Your task to perform on an android device: What is the news today? Image 0: 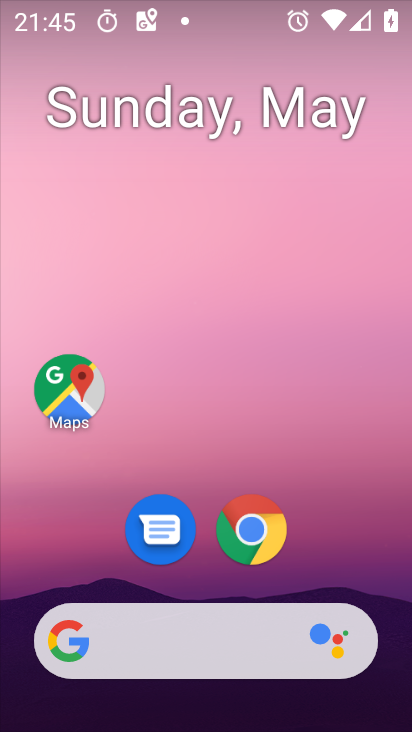
Step 0: click (135, 650)
Your task to perform on an android device: What is the news today? Image 1: 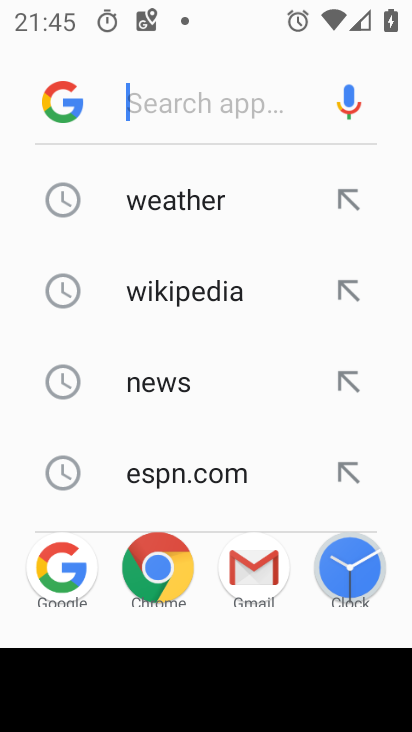
Step 1: click (156, 99)
Your task to perform on an android device: What is the news today? Image 2: 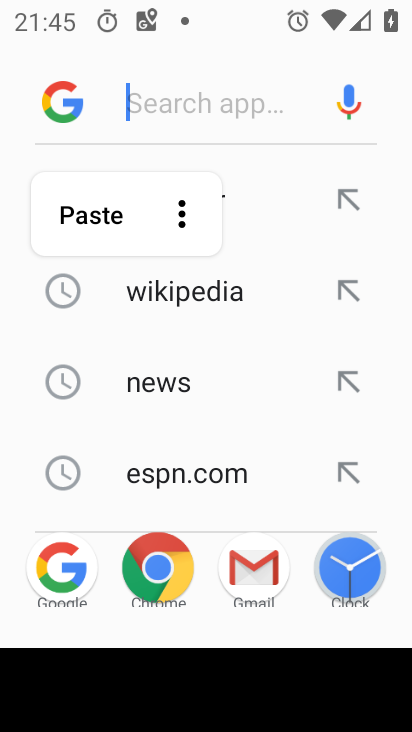
Step 2: type "today's news"
Your task to perform on an android device: What is the news today? Image 3: 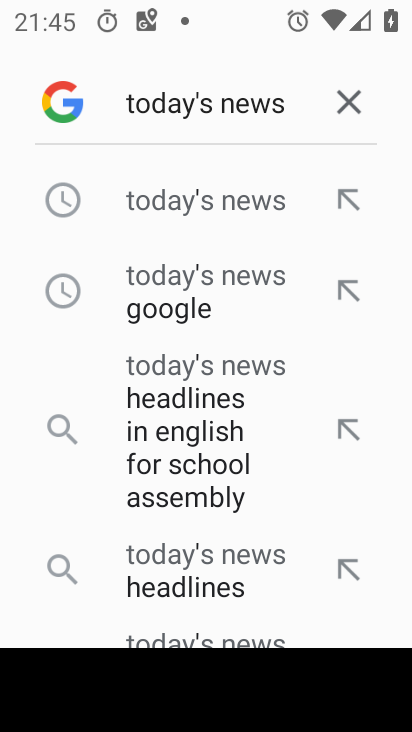
Step 3: click (192, 200)
Your task to perform on an android device: What is the news today? Image 4: 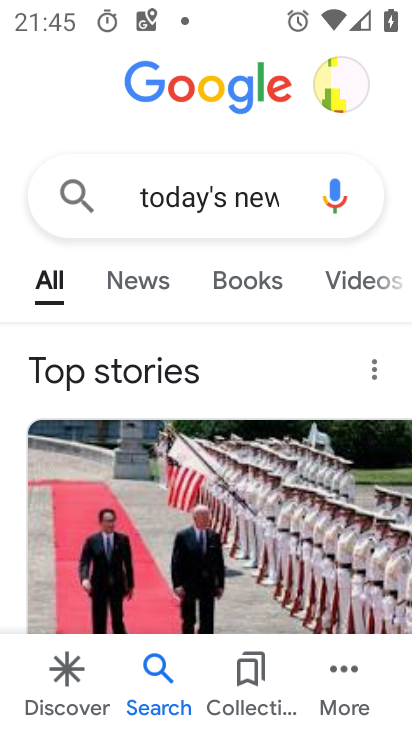
Step 4: drag from (205, 459) to (239, 176)
Your task to perform on an android device: What is the news today? Image 5: 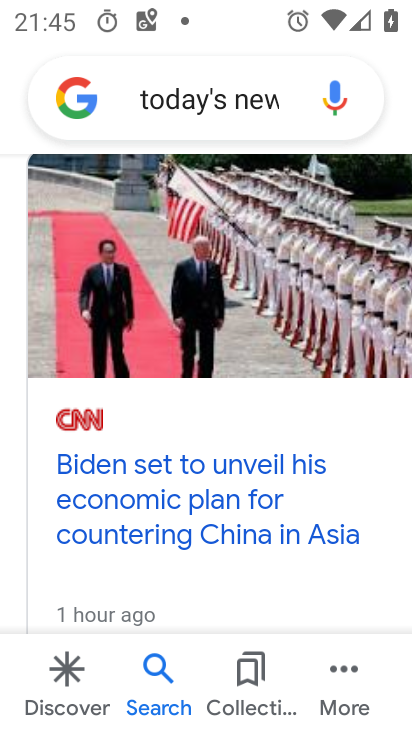
Step 5: click (252, 233)
Your task to perform on an android device: What is the news today? Image 6: 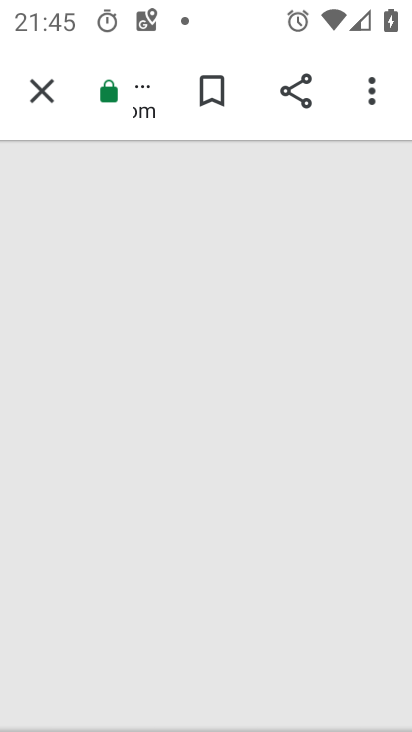
Step 6: click (57, 99)
Your task to perform on an android device: What is the news today? Image 7: 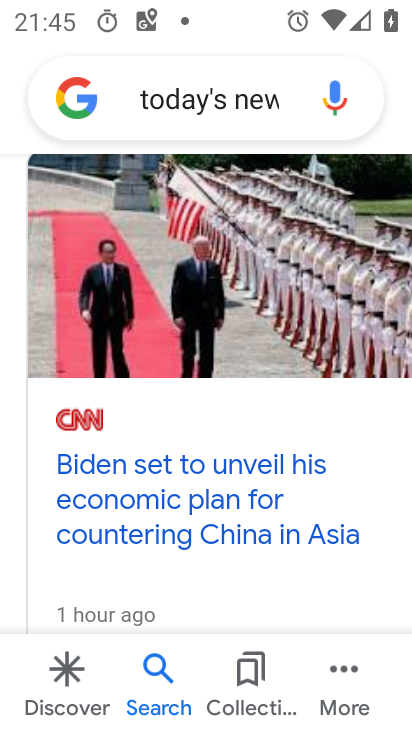
Step 7: drag from (163, 440) to (170, 81)
Your task to perform on an android device: What is the news today? Image 8: 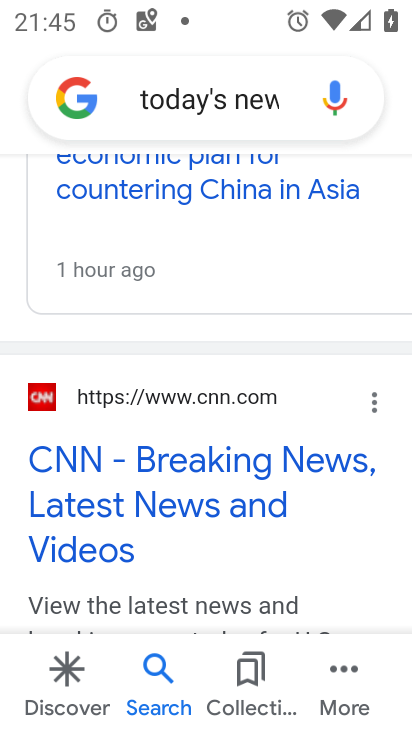
Step 8: drag from (195, 488) to (216, 185)
Your task to perform on an android device: What is the news today? Image 9: 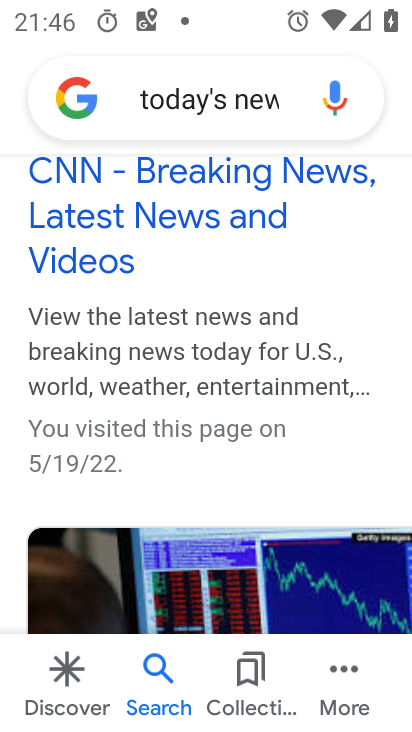
Step 9: drag from (167, 184) to (190, 632)
Your task to perform on an android device: What is the news today? Image 10: 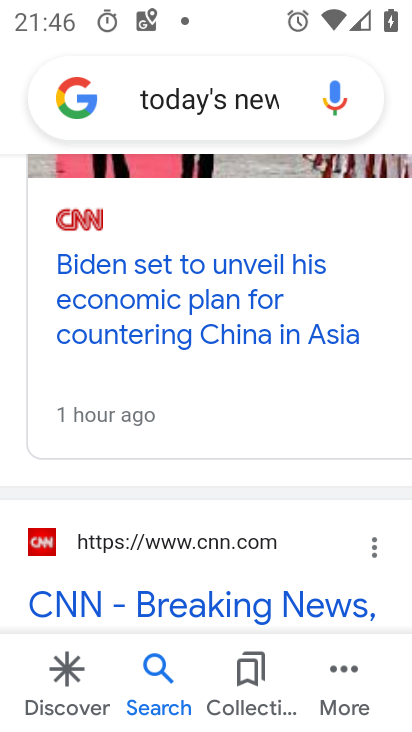
Step 10: drag from (150, 231) to (164, 638)
Your task to perform on an android device: What is the news today? Image 11: 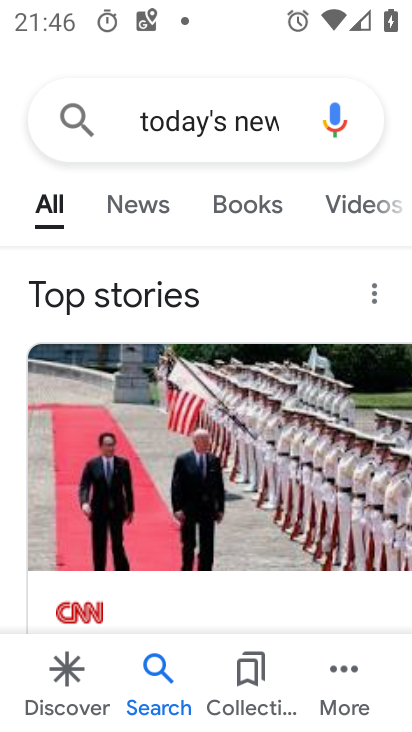
Step 11: click (131, 218)
Your task to perform on an android device: What is the news today? Image 12: 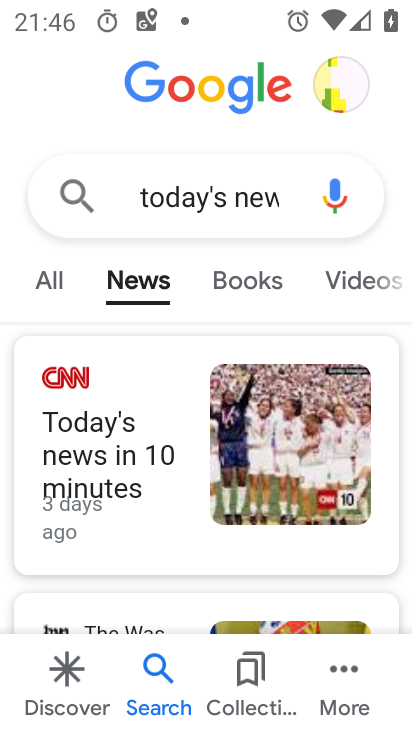
Step 12: drag from (145, 543) to (153, 166)
Your task to perform on an android device: What is the news today? Image 13: 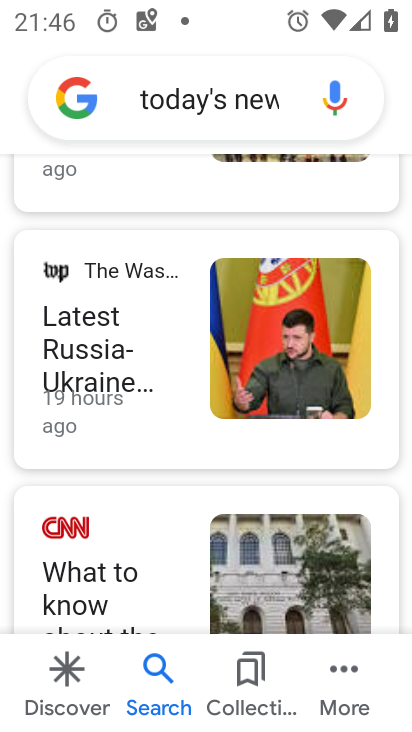
Step 13: drag from (173, 517) to (173, 192)
Your task to perform on an android device: What is the news today? Image 14: 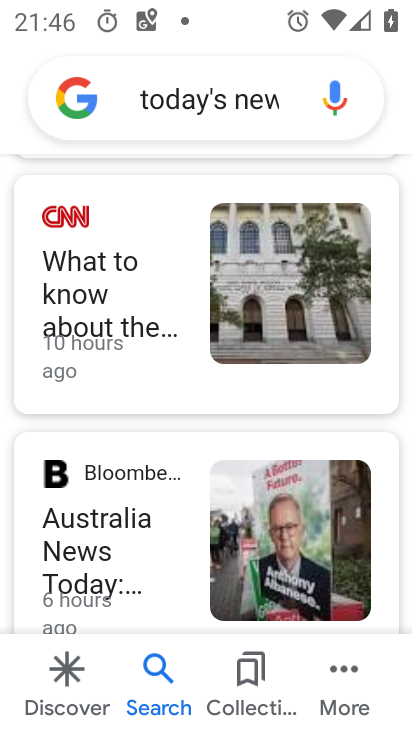
Step 14: click (142, 306)
Your task to perform on an android device: What is the news today? Image 15: 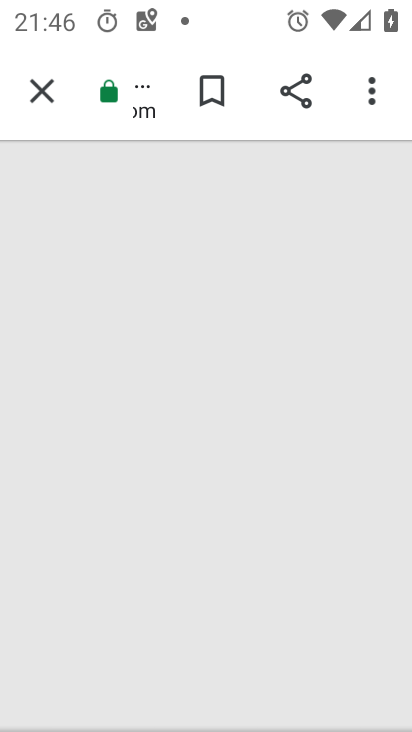
Step 15: task complete